Your task to perform on an android device: turn off picture-in-picture Image 0: 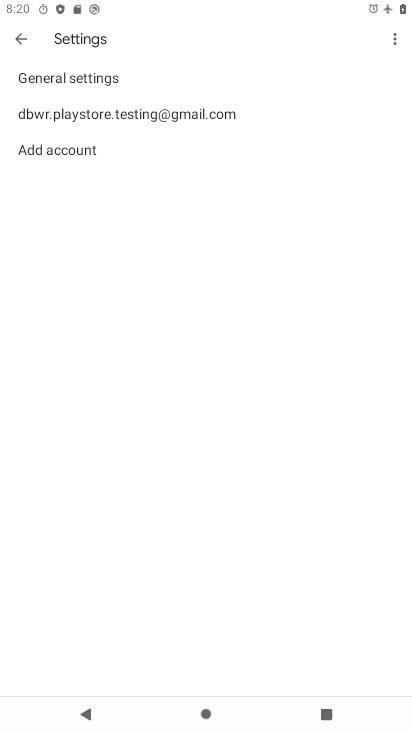
Step 0: press back button
Your task to perform on an android device: turn off picture-in-picture Image 1: 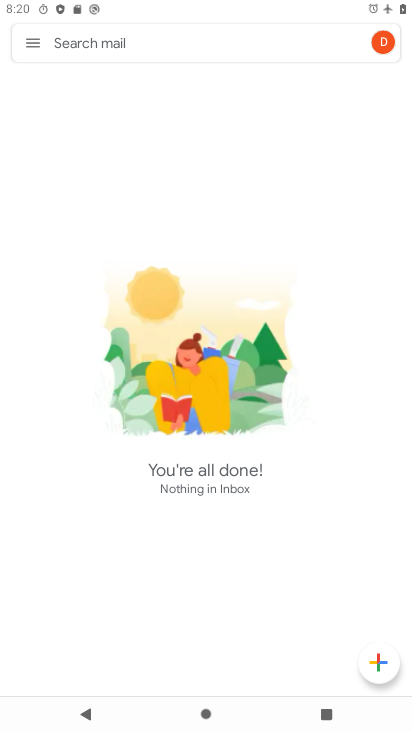
Step 1: press back button
Your task to perform on an android device: turn off picture-in-picture Image 2: 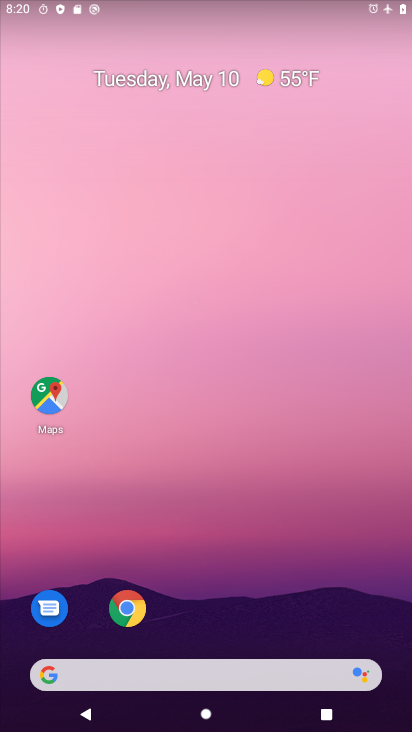
Step 2: click (129, 609)
Your task to perform on an android device: turn off picture-in-picture Image 3: 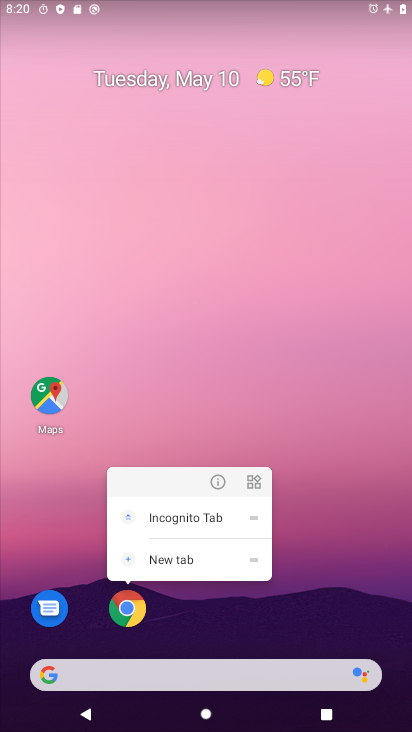
Step 3: click (222, 481)
Your task to perform on an android device: turn off picture-in-picture Image 4: 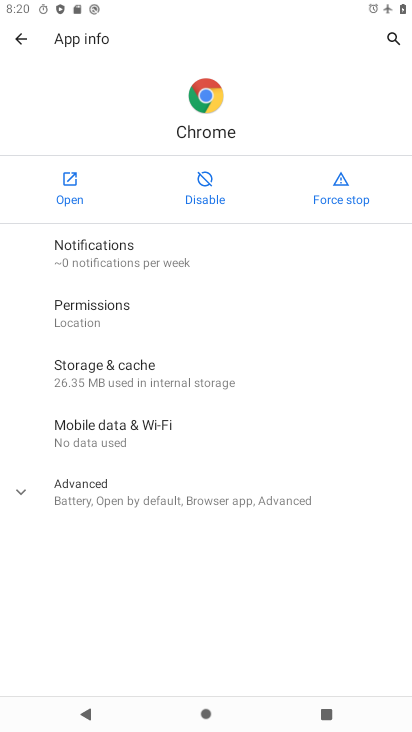
Step 4: click (119, 491)
Your task to perform on an android device: turn off picture-in-picture Image 5: 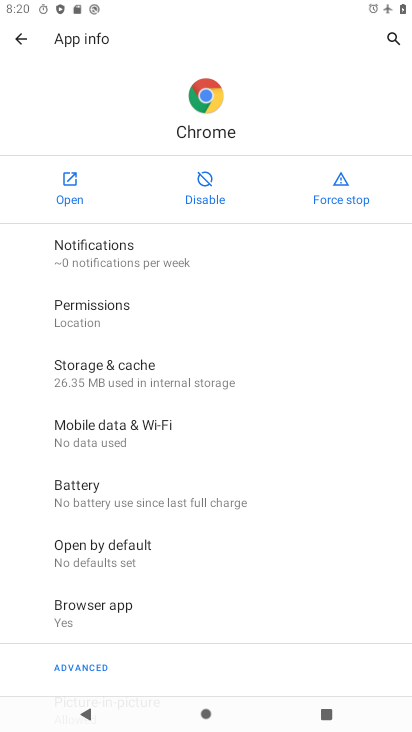
Step 5: drag from (156, 594) to (188, 482)
Your task to perform on an android device: turn off picture-in-picture Image 6: 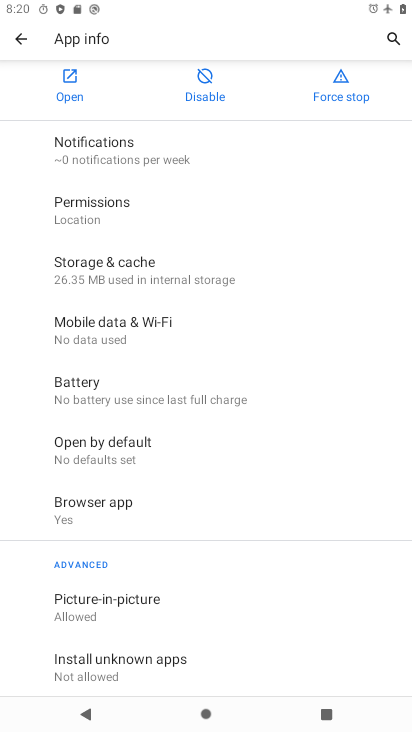
Step 6: click (114, 596)
Your task to perform on an android device: turn off picture-in-picture Image 7: 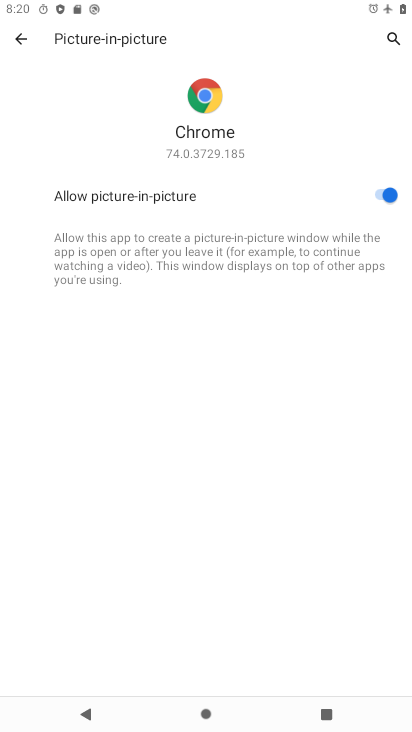
Step 7: click (385, 199)
Your task to perform on an android device: turn off picture-in-picture Image 8: 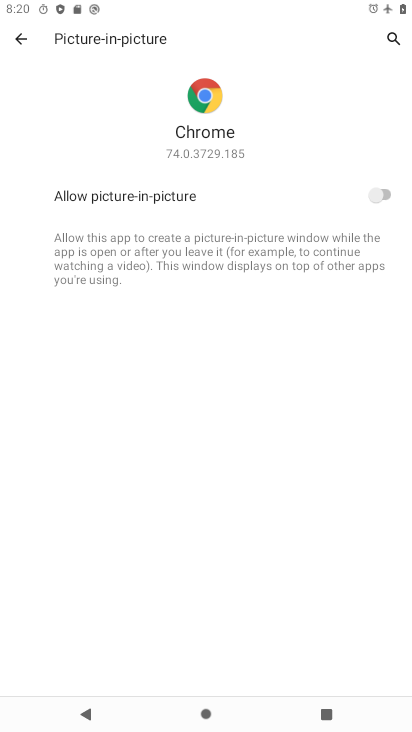
Step 8: task complete